Your task to perform on an android device: check out phone information Image 0: 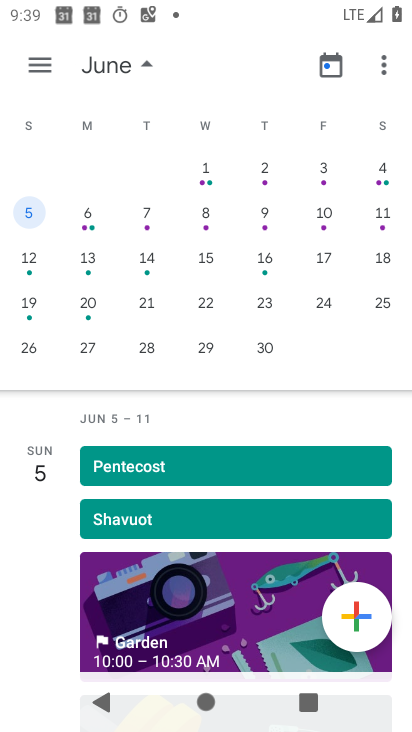
Step 0: press home button
Your task to perform on an android device: check out phone information Image 1: 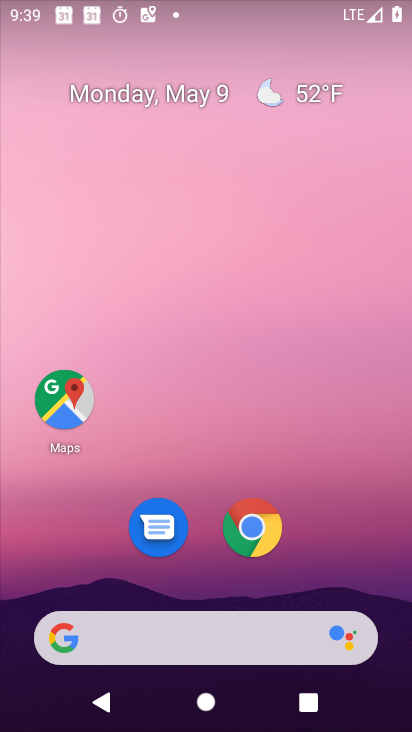
Step 1: drag from (327, 483) to (396, 200)
Your task to perform on an android device: check out phone information Image 2: 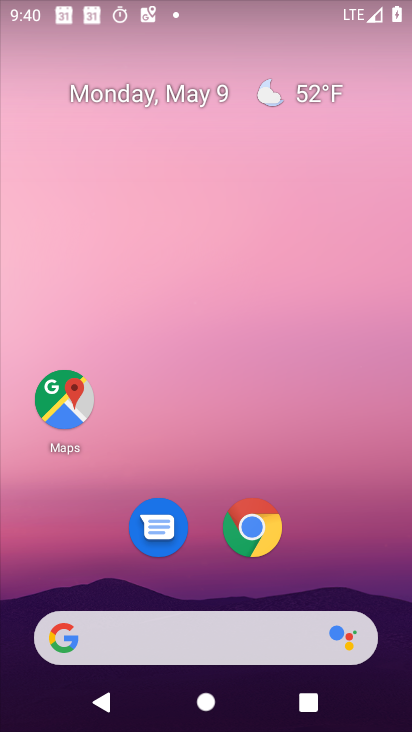
Step 2: drag from (352, 538) to (333, 107)
Your task to perform on an android device: check out phone information Image 3: 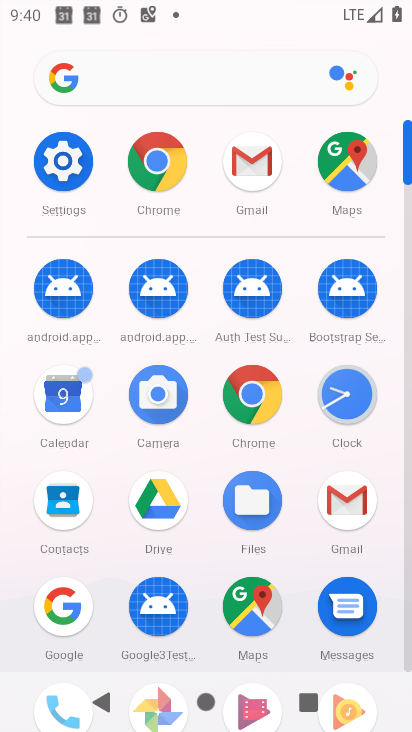
Step 3: click (46, 165)
Your task to perform on an android device: check out phone information Image 4: 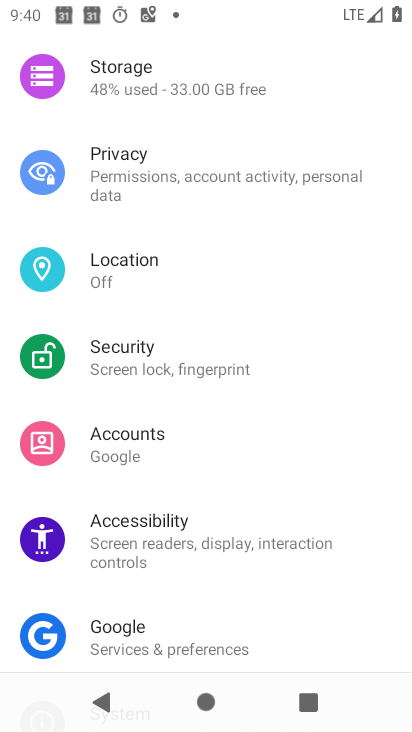
Step 4: task complete